Your task to perform on an android device: Open Google Chrome Image 0: 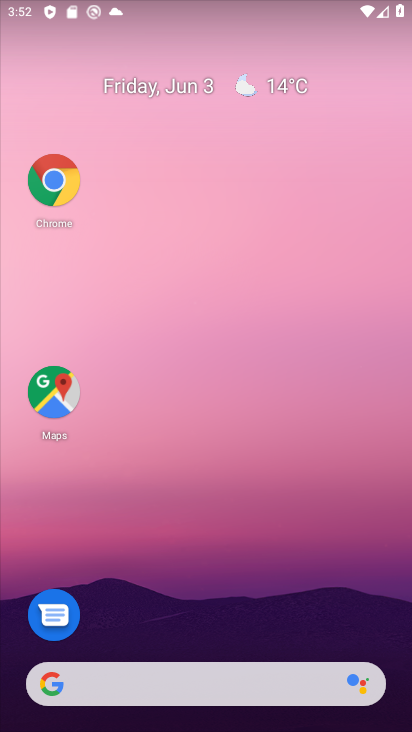
Step 0: click (48, 198)
Your task to perform on an android device: Open Google Chrome Image 1: 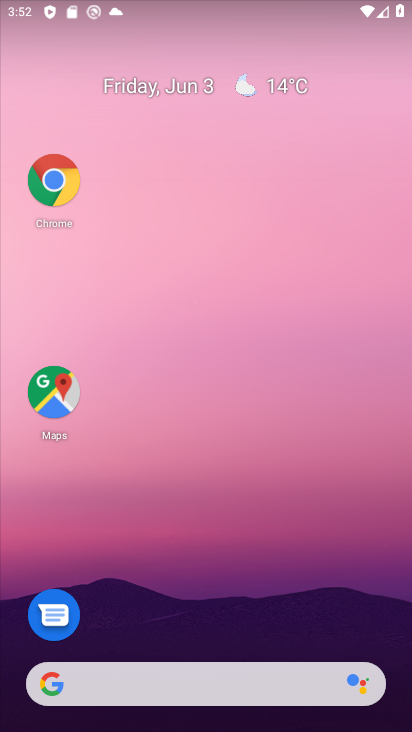
Step 1: click (57, 188)
Your task to perform on an android device: Open Google Chrome Image 2: 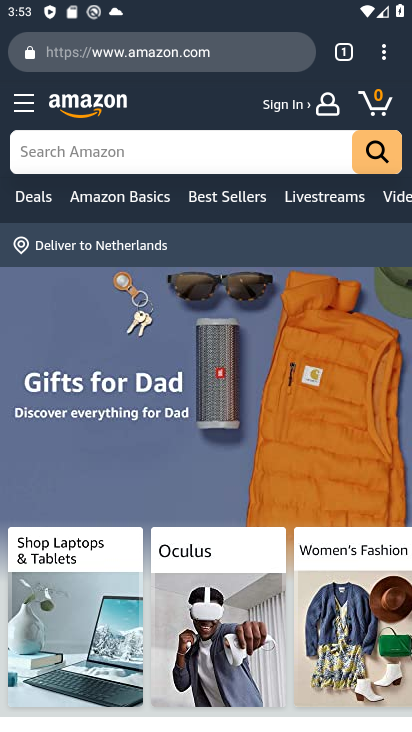
Step 2: task complete